Your task to perform on an android device: check storage Image 0: 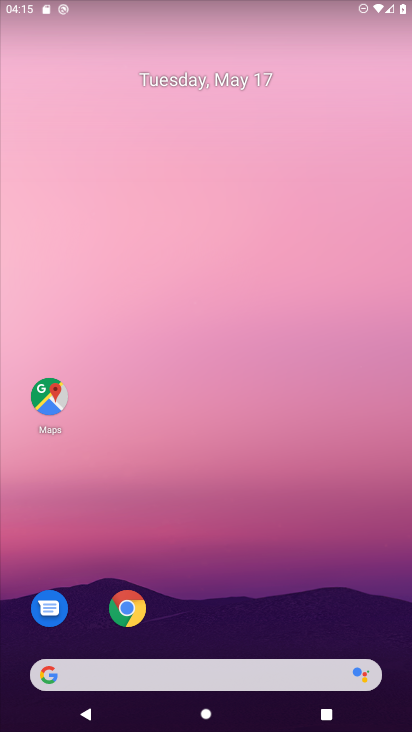
Step 0: drag from (205, 661) to (247, 184)
Your task to perform on an android device: check storage Image 1: 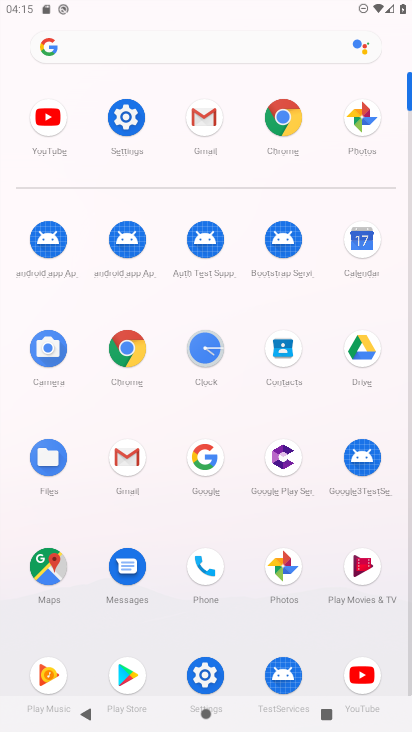
Step 1: click (117, 118)
Your task to perform on an android device: check storage Image 2: 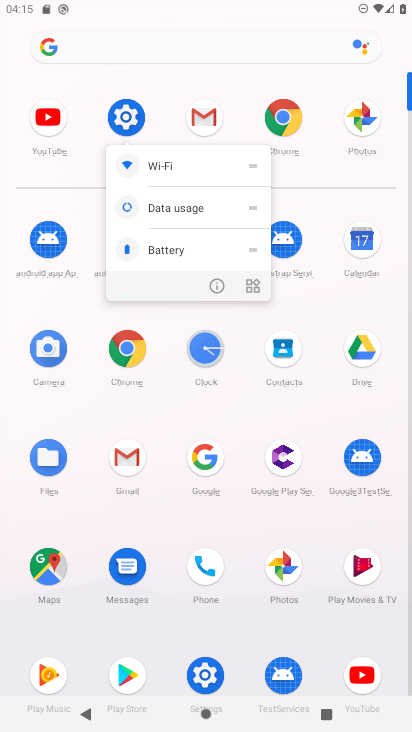
Step 2: click (129, 120)
Your task to perform on an android device: check storage Image 3: 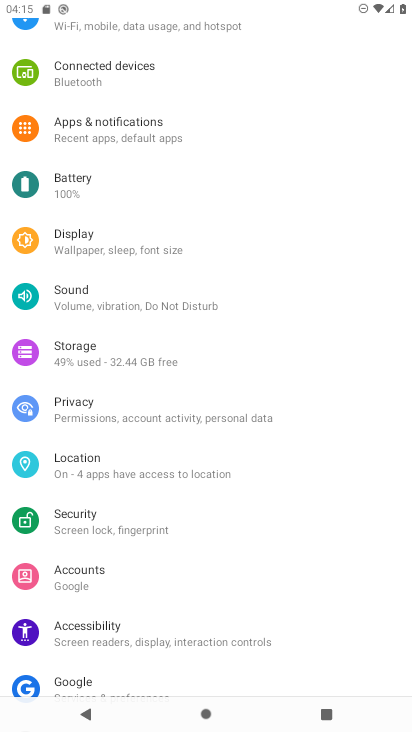
Step 3: click (88, 350)
Your task to perform on an android device: check storage Image 4: 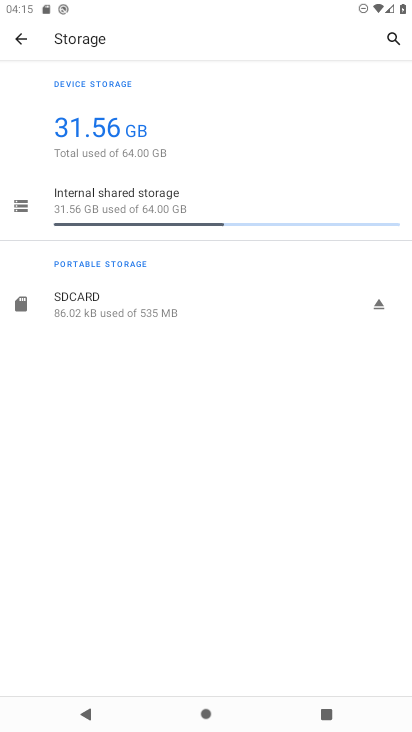
Step 4: task complete